Your task to perform on an android device: Go to eBay Image 0: 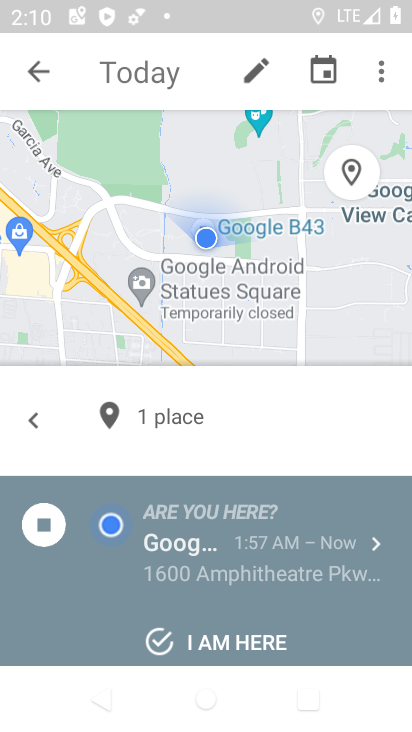
Step 0: press home button
Your task to perform on an android device: Go to eBay Image 1: 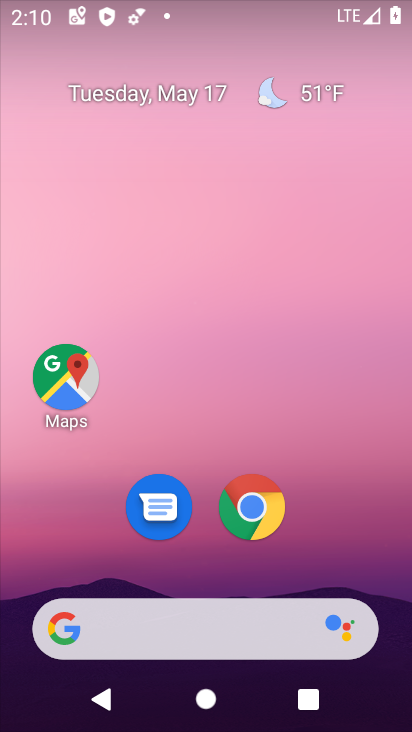
Step 1: click (265, 499)
Your task to perform on an android device: Go to eBay Image 2: 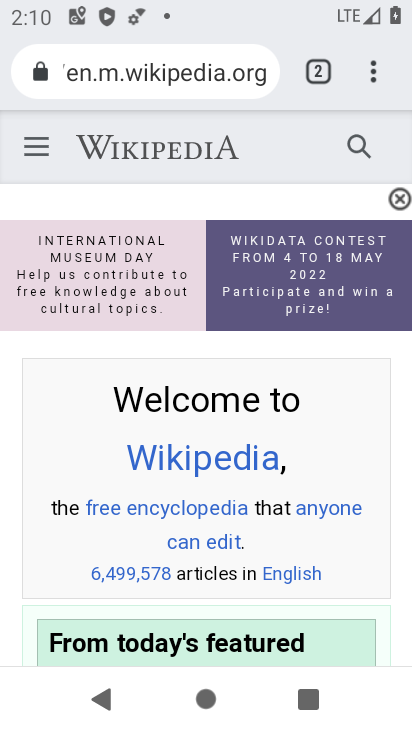
Step 2: click (171, 59)
Your task to perform on an android device: Go to eBay Image 3: 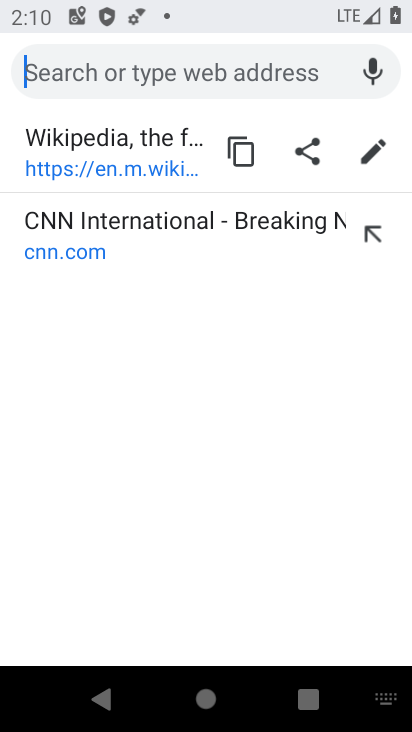
Step 3: type "ebay"
Your task to perform on an android device: Go to eBay Image 4: 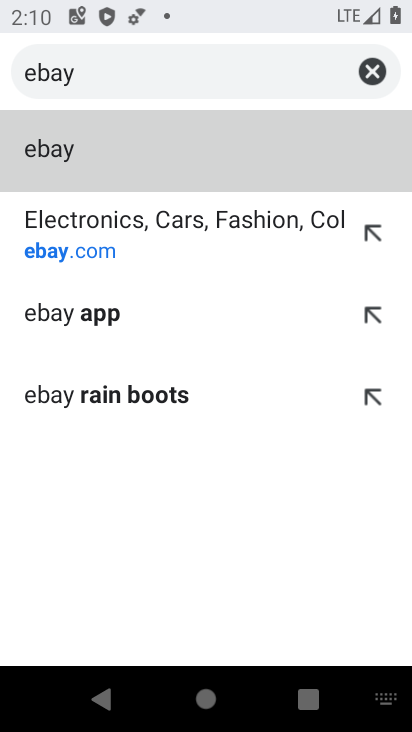
Step 4: click (69, 151)
Your task to perform on an android device: Go to eBay Image 5: 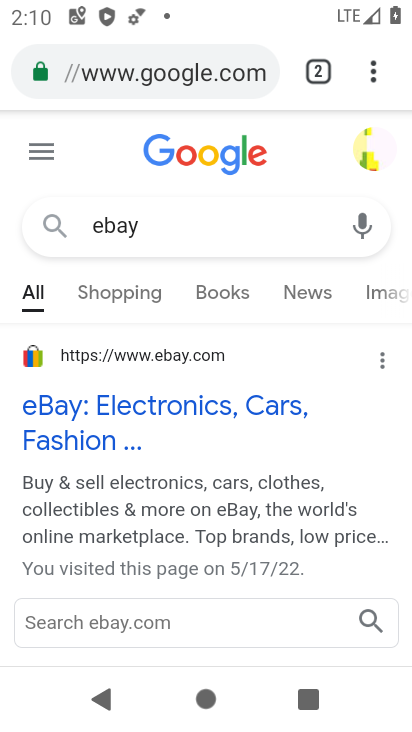
Step 5: click (44, 407)
Your task to perform on an android device: Go to eBay Image 6: 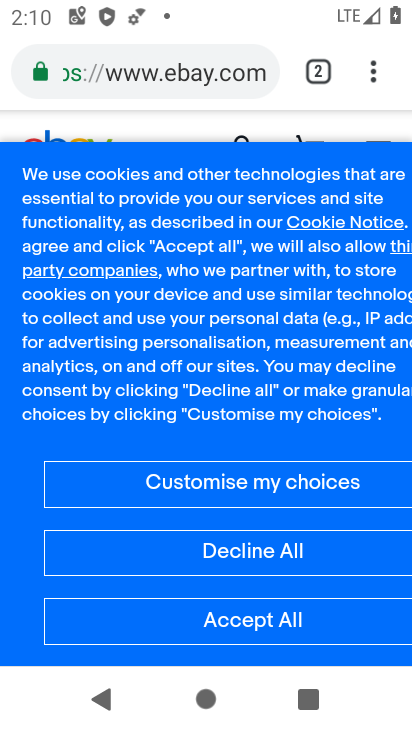
Step 6: task complete